Your task to perform on an android device: change timer sound Image 0: 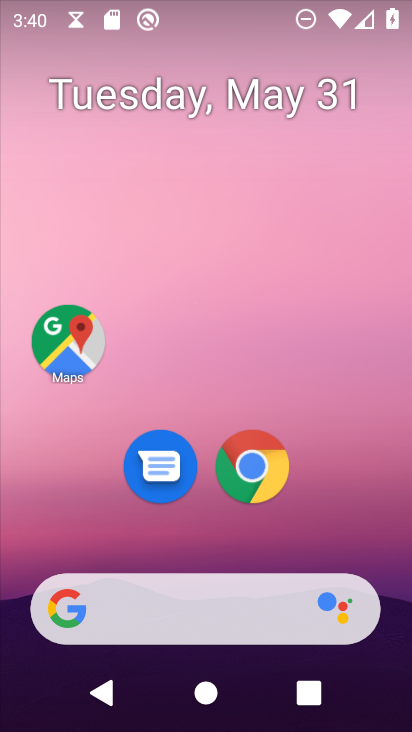
Step 0: drag from (232, 491) to (279, 16)
Your task to perform on an android device: change timer sound Image 1: 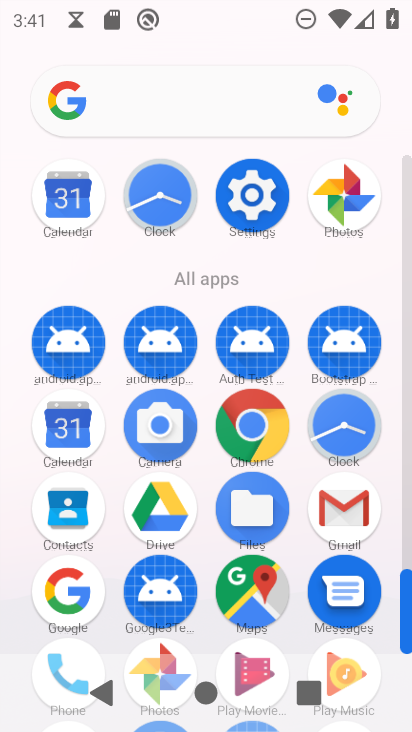
Step 1: click (148, 198)
Your task to perform on an android device: change timer sound Image 2: 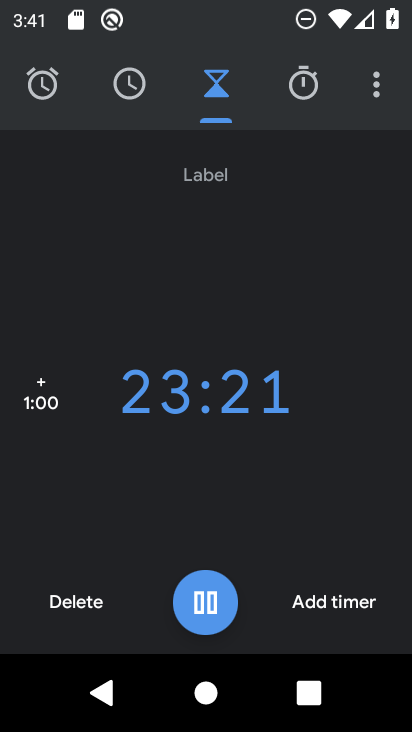
Step 2: click (376, 74)
Your task to perform on an android device: change timer sound Image 3: 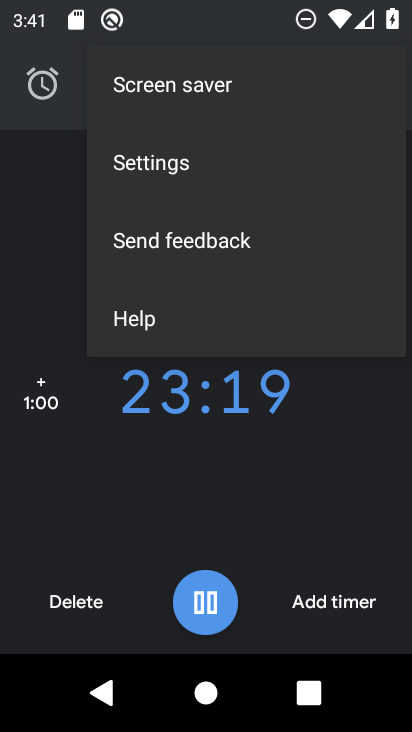
Step 3: click (171, 163)
Your task to perform on an android device: change timer sound Image 4: 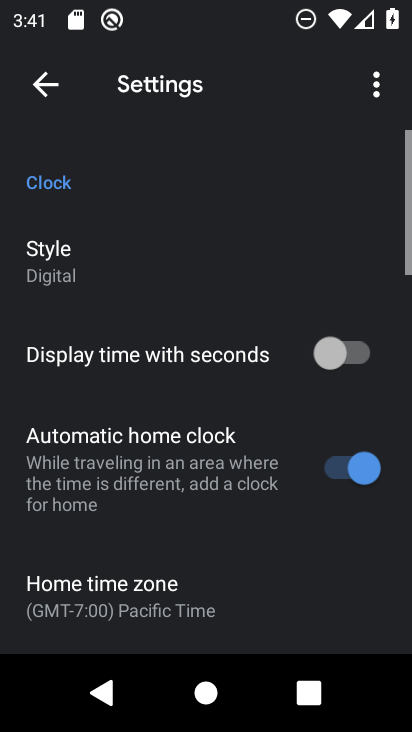
Step 4: drag from (167, 526) to (216, 69)
Your task to perform on an android device: change timer sound Image 5: 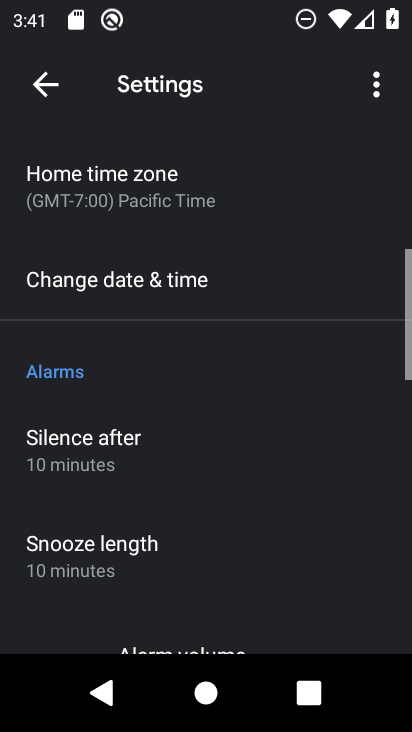
Step 5: drag from (153, 535) to (187, 148)
Your task to perform on an android device: change timer sound Image 6: 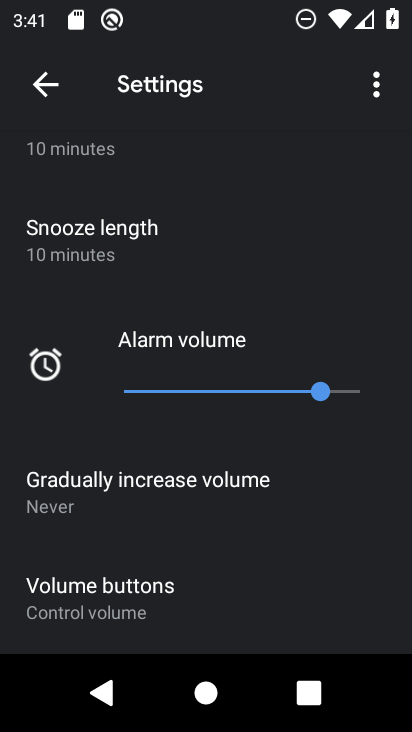
Step 6: drag from (232, 573) to (290, 55)
Your task to perform on an android device: change timer sound Image 7: 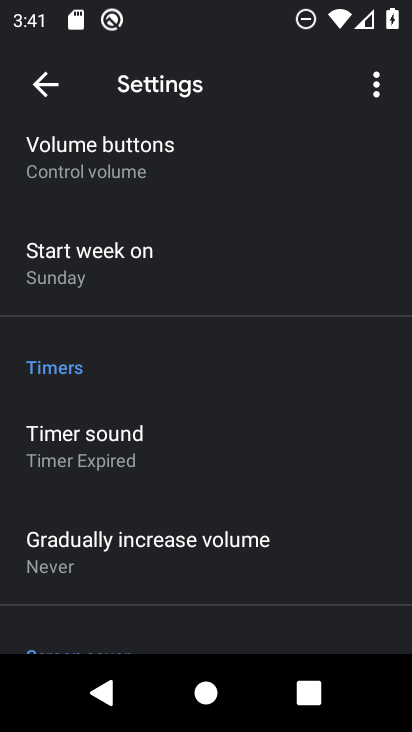
Step 7: click (156, 455)
Your task to perform on an android device: change timer sound Image 8: 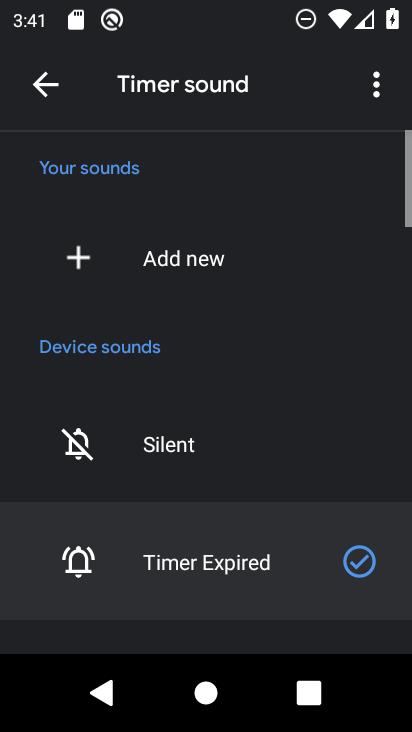
Step 8: drag from (163, 640) to (221, 187)
Your task to perform on an android device: change timer sound Image 9: 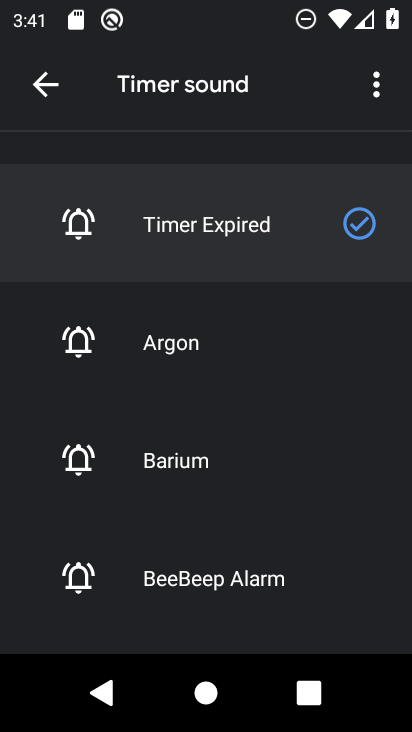
Step 9: click (167, 334)
Your task to perform on an android device: change timer sound Image 10: 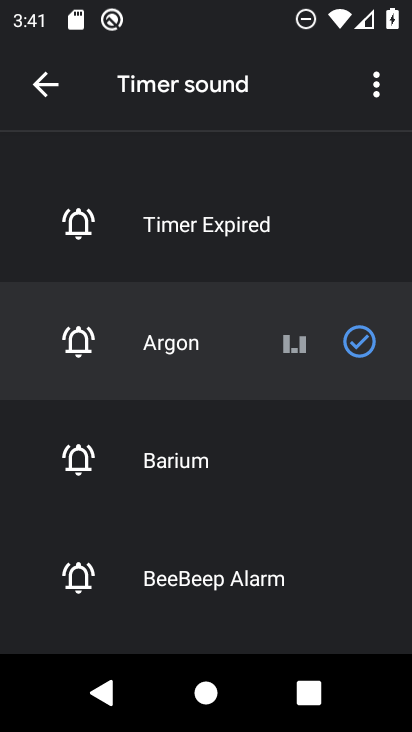
Step 10: task complete